Your task to perform on an android device: allow cookies in the chrome app Image 0: 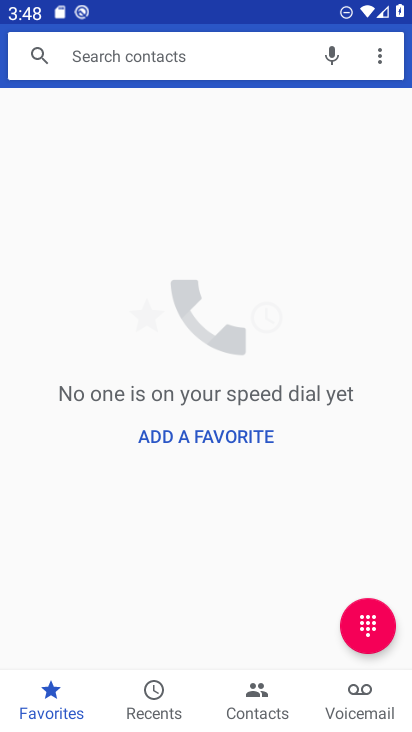
Step 0: press home button
Your task to perform on an android device: allow cookies in the chrome app Image 1: 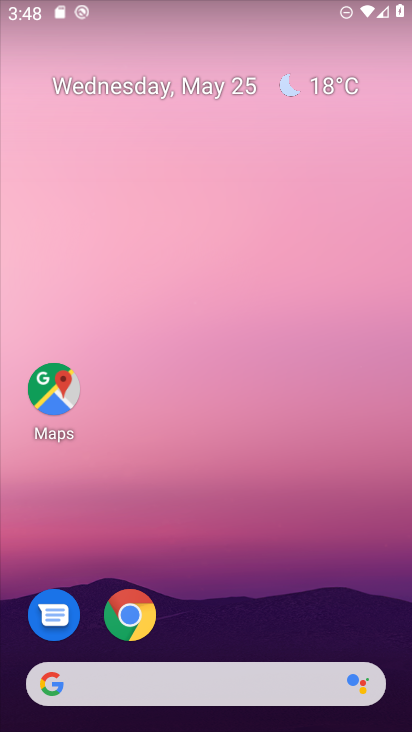
Step 1: click (136, 604)
Your task to perform on an android device: allow cookies in the chrome app Image 2: 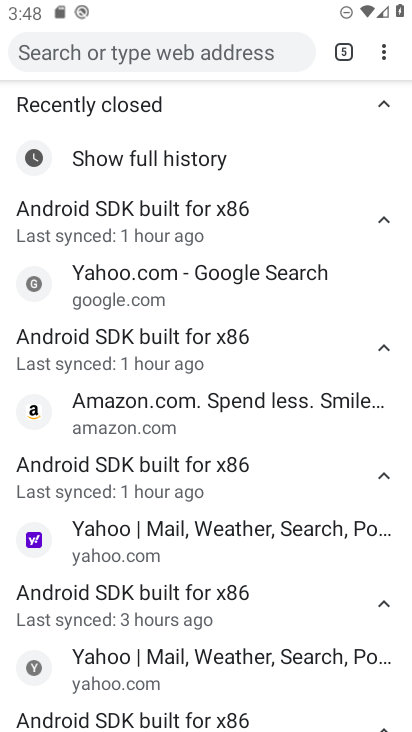
Step 2: click (381, 57)
Your task to perform on an android device: allow cookies in the chrome app Image 3: 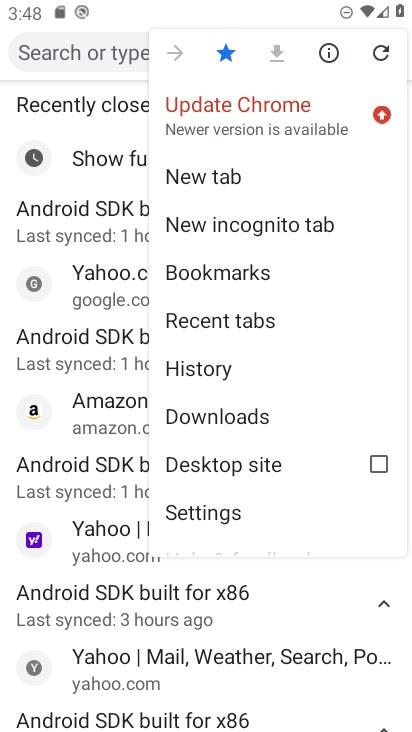
Step 3: click (224, 506)
Your task to perform on an android device: allow cookies in the chrome app Image 4: 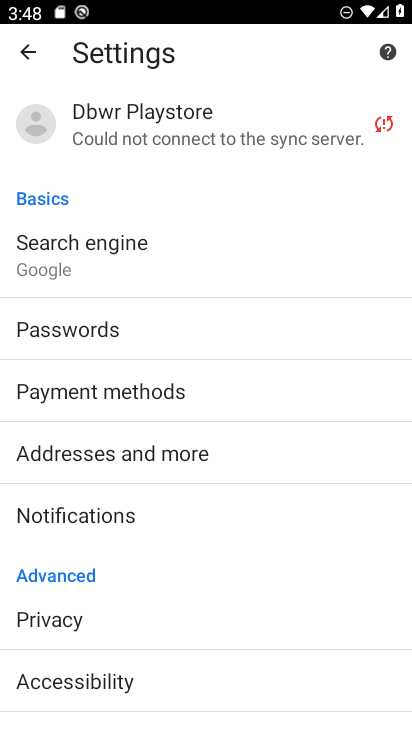
Step 4: drag from (218, 584) to (223, 238)
Your task to perform on an android device: allow cookies in the chrome app Image 5: 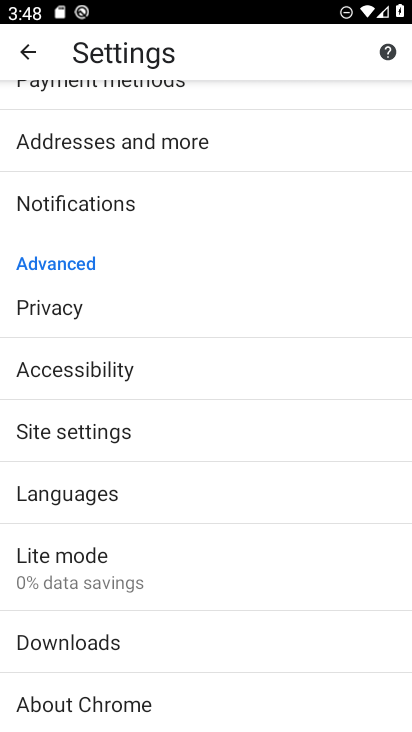
Step 5: click (187, 431)
Your task to perform on an android device: allow cookies in the chrome app Image 6: 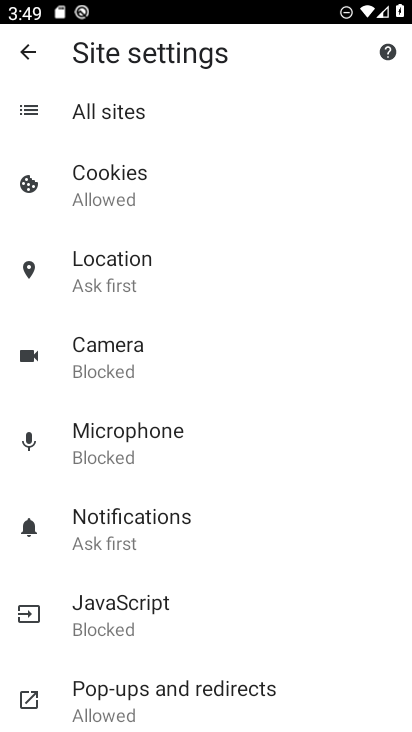
Step 6: drag from (234, 539) to (256, 568)
Your task to perform on an android device: allow cookies in the chrome app Image 7: 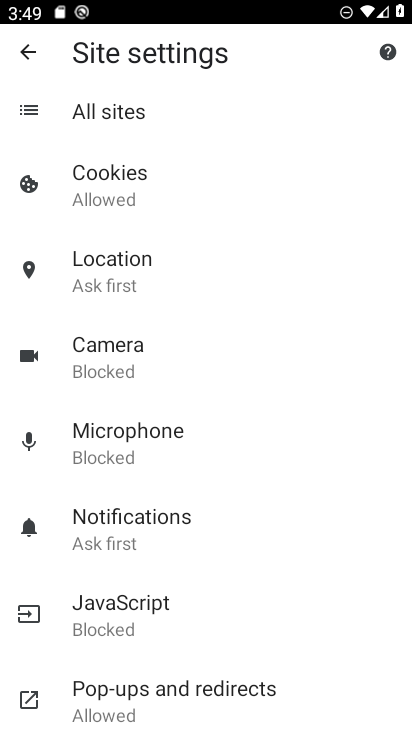
Step 7: click (220, 187)
Your task to perform on an android device: allow cookies in the chrome app Image 8: 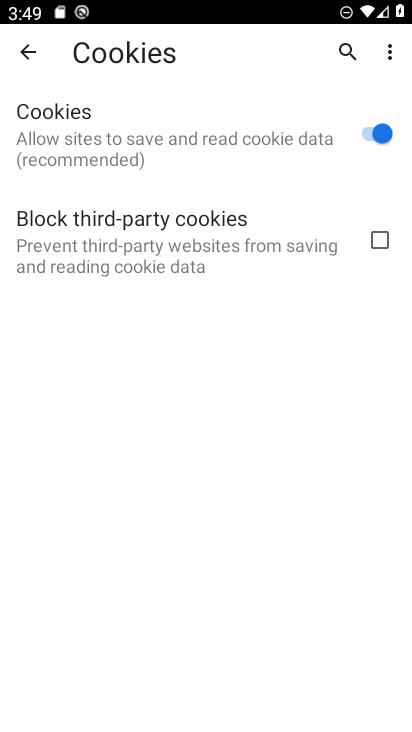
Step 8: task complete